Your task to perform on an android device: open the mobile data screen to see how much data has been used Image 0: 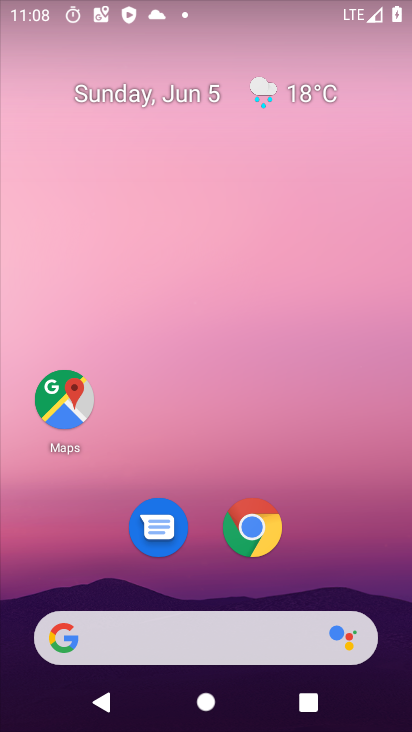
Step 0: drag from (314, 162) to (246, 51)
Your task to perform on an android device: open the mobile data screen to see how much data has been used Image 1: 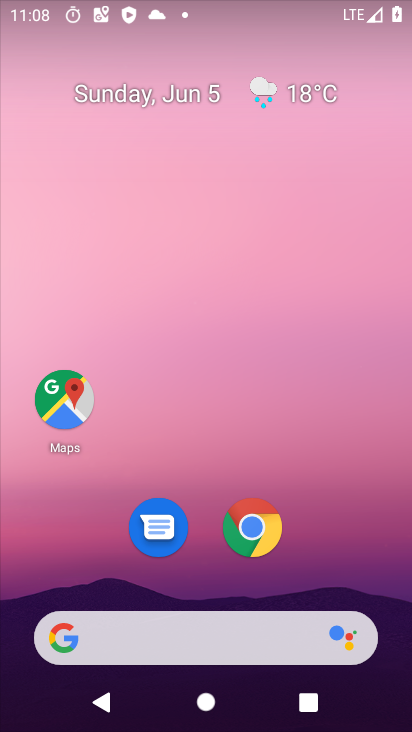
Step 1: drag from (346, 569) to (225, 58)
Your task to perform on an android device: open the mobile data screen to see how much data has been used Image 2: 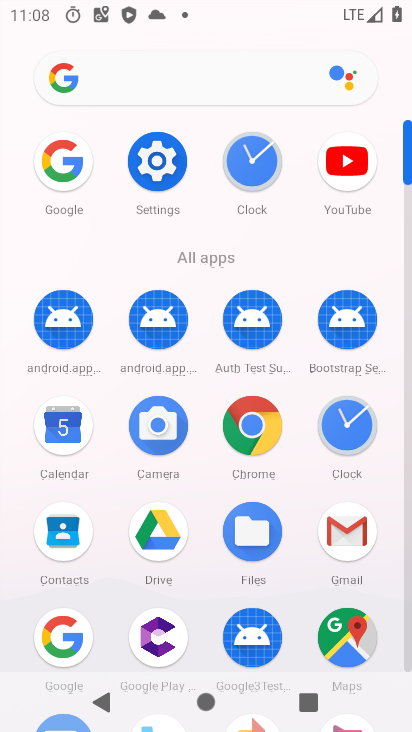
Step 2: click (152, 176)
Your task to perform on an android device: open the mobile data screen to see how much data has been used Image 3: 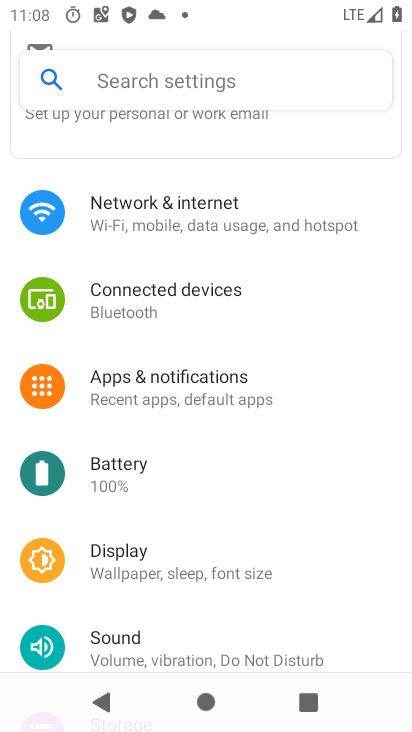
Step 3: click (193, 220)
Your task to perform on an android device: open the mobile data screen to see how much data has been used Image 4: 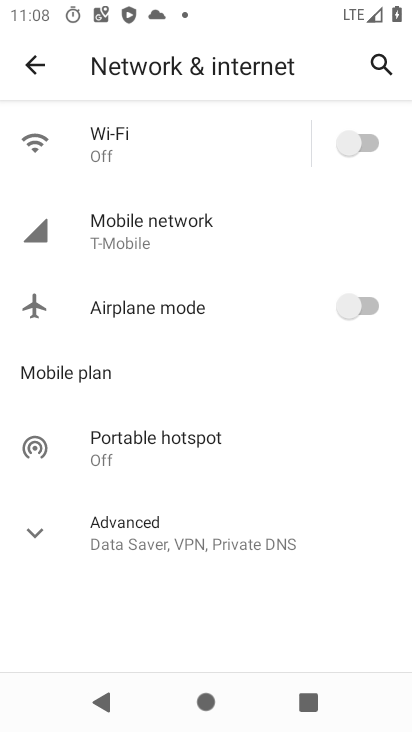
Step 4: click (167, 235)
Your task to perform on an android device: open the mobile data screen to see how much data has been used Image 5: 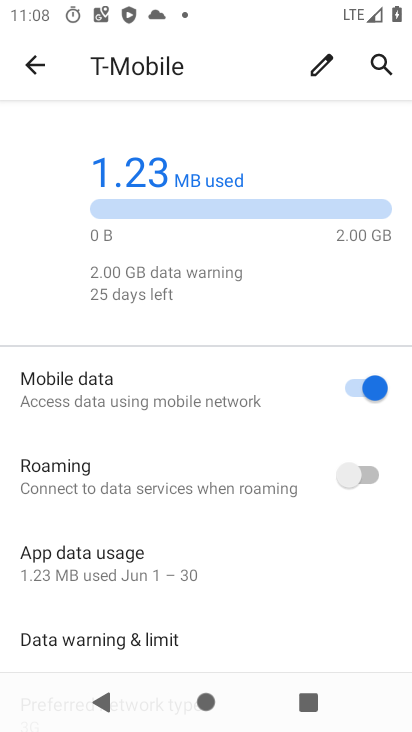
Step 5: task complete